Your task to perform on an android device: Open calendar and show me the first week of next month Image 0: 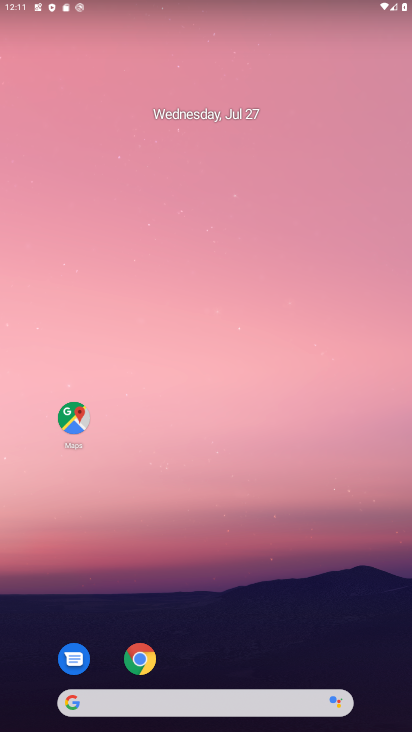
Step 0: press home button
Your task to perform on an android device: Open calendar and show me the first week of next month Image 1: 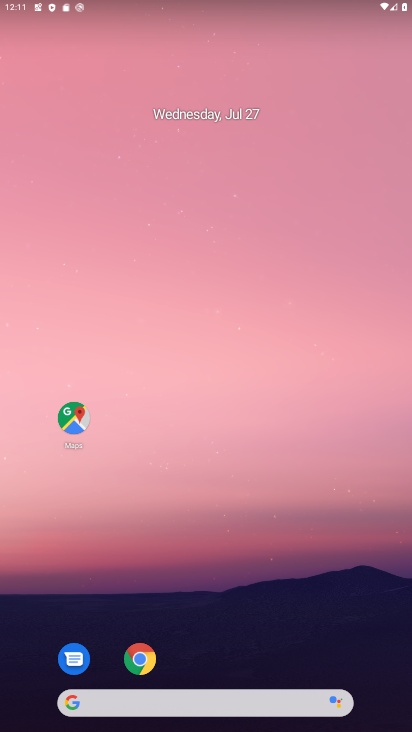
Step 1: drag from (215, 662) to (245, 51)
Your task to perform on an android device: Open calendar and show me the first week of next month Image 2: 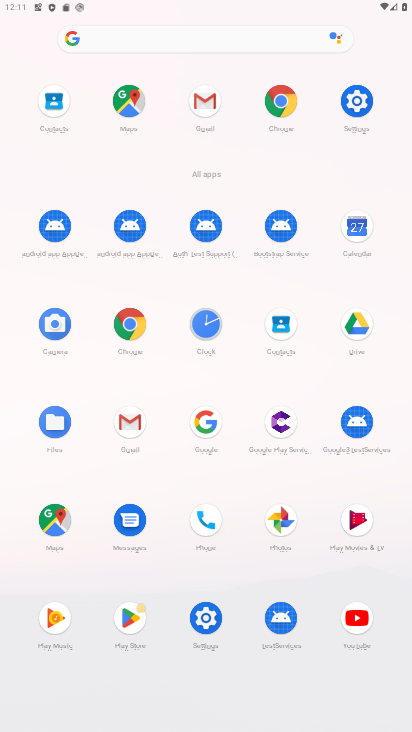
Step 2: click (358, 224)
Your task to perform on an android device: Open calendar and show me the first week of next month Image 3: 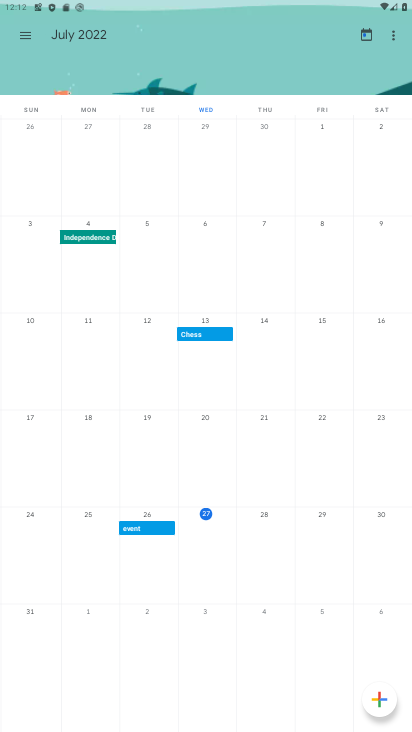
Step 3: click (21, 29)
Your task to perform on an android device: Open calendar and show me the first week of next month Image 4: 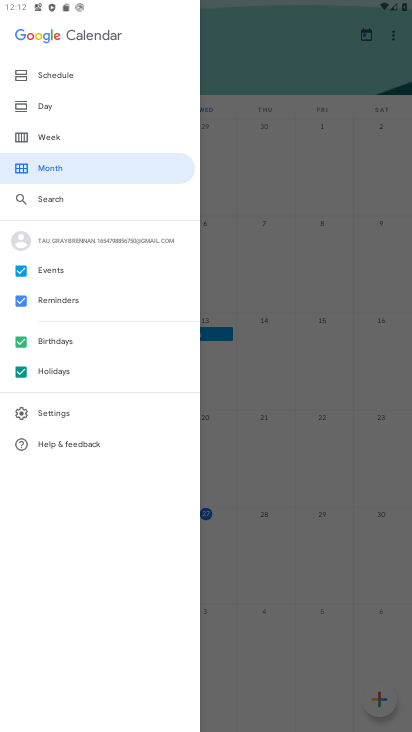
Step 4: click (52, 135)
Your task to perform on an android device: Open calendar and show me the first week of next month Image 5: 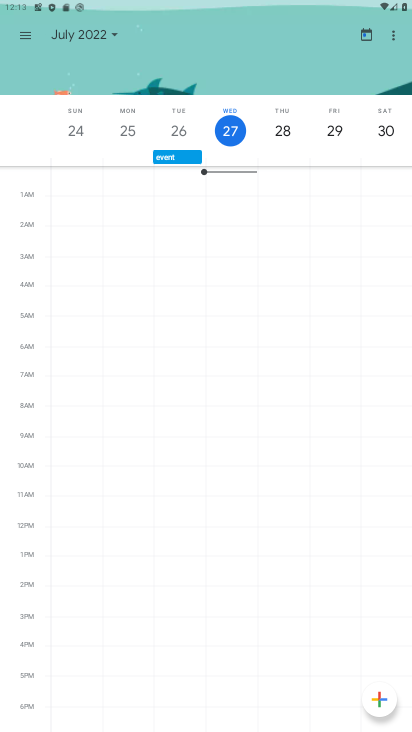
Step 5: task complete